Your task to perform on an android device: Go to settings Image 0: 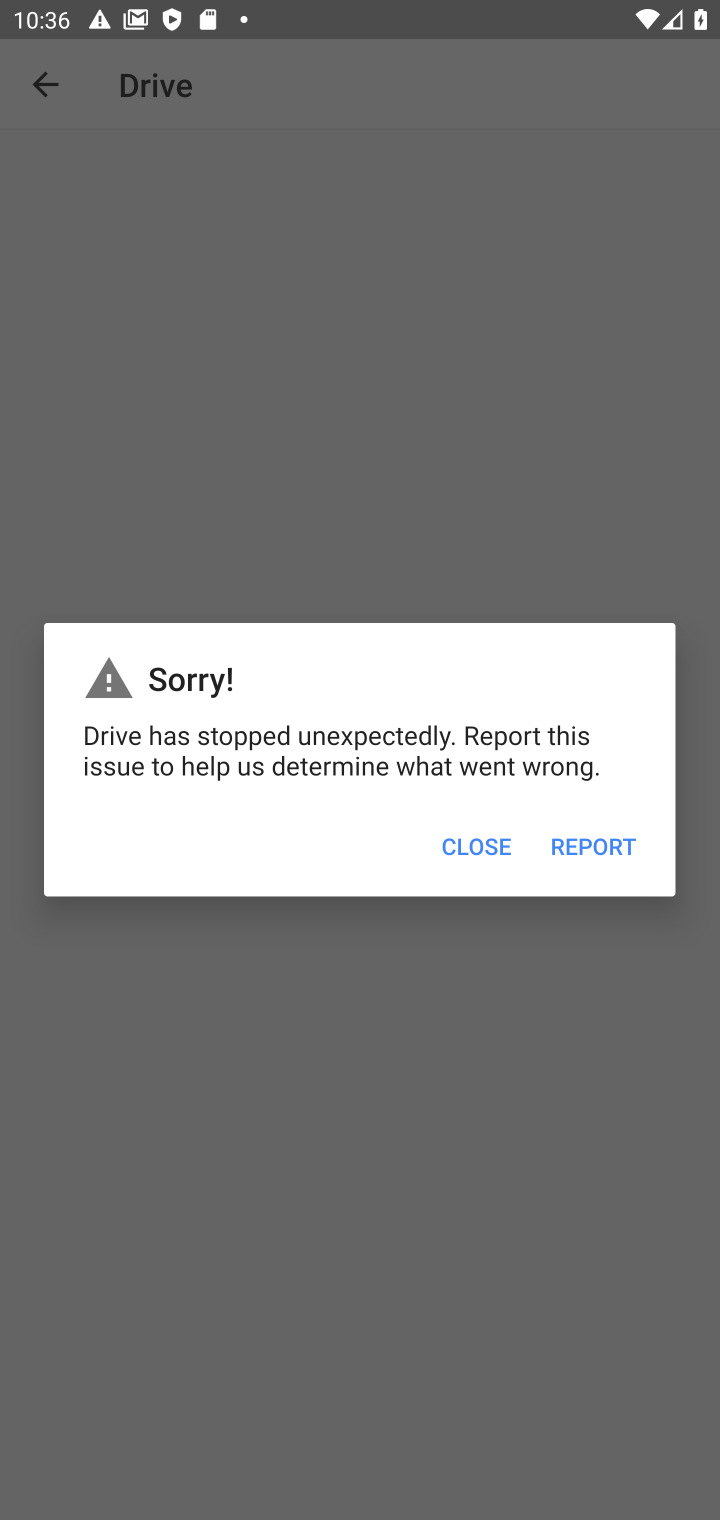
Step 0: press home button
Your task to perform on an android device: Go to settings Image 1: 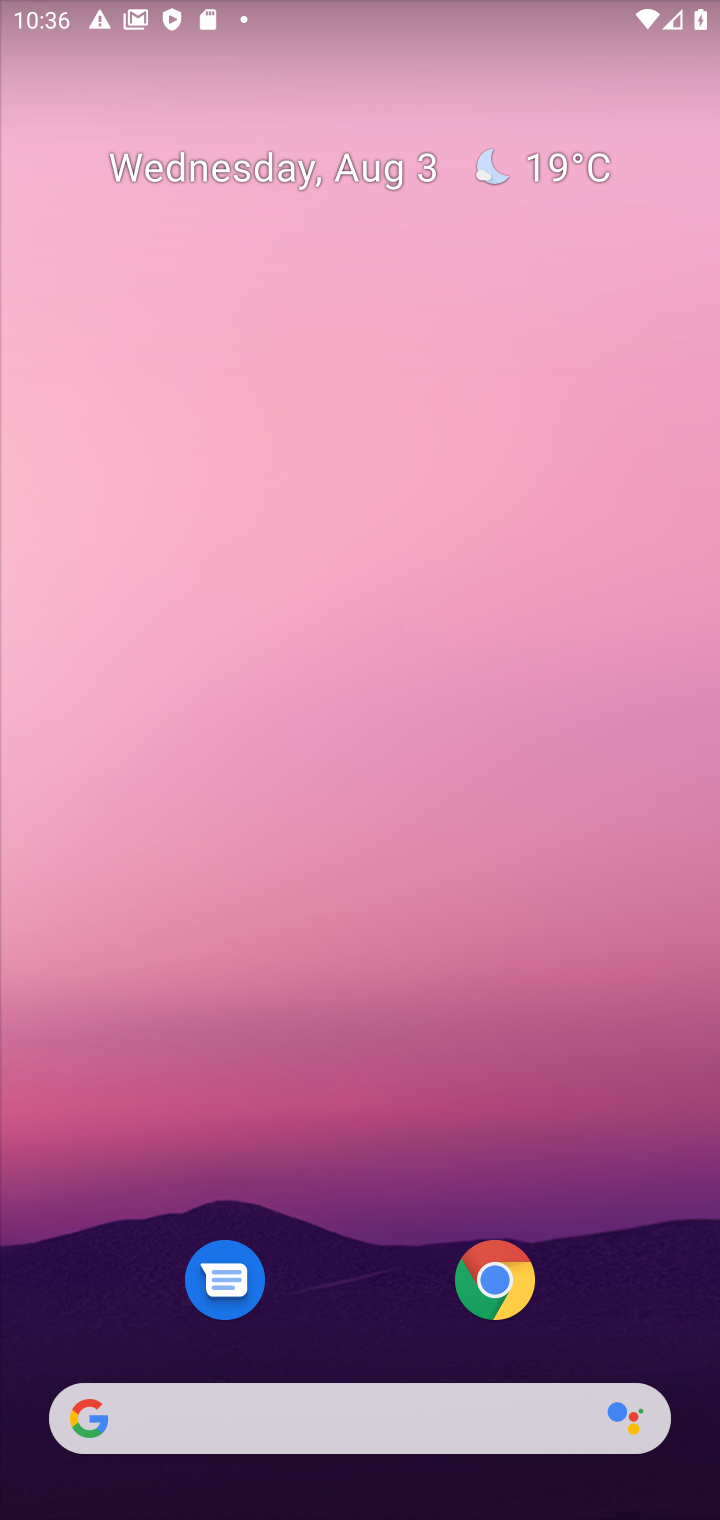
Step 1: drag from (442, 1121) to (459, 55)
Your task to perform on an android device: Go to settings Image 2: 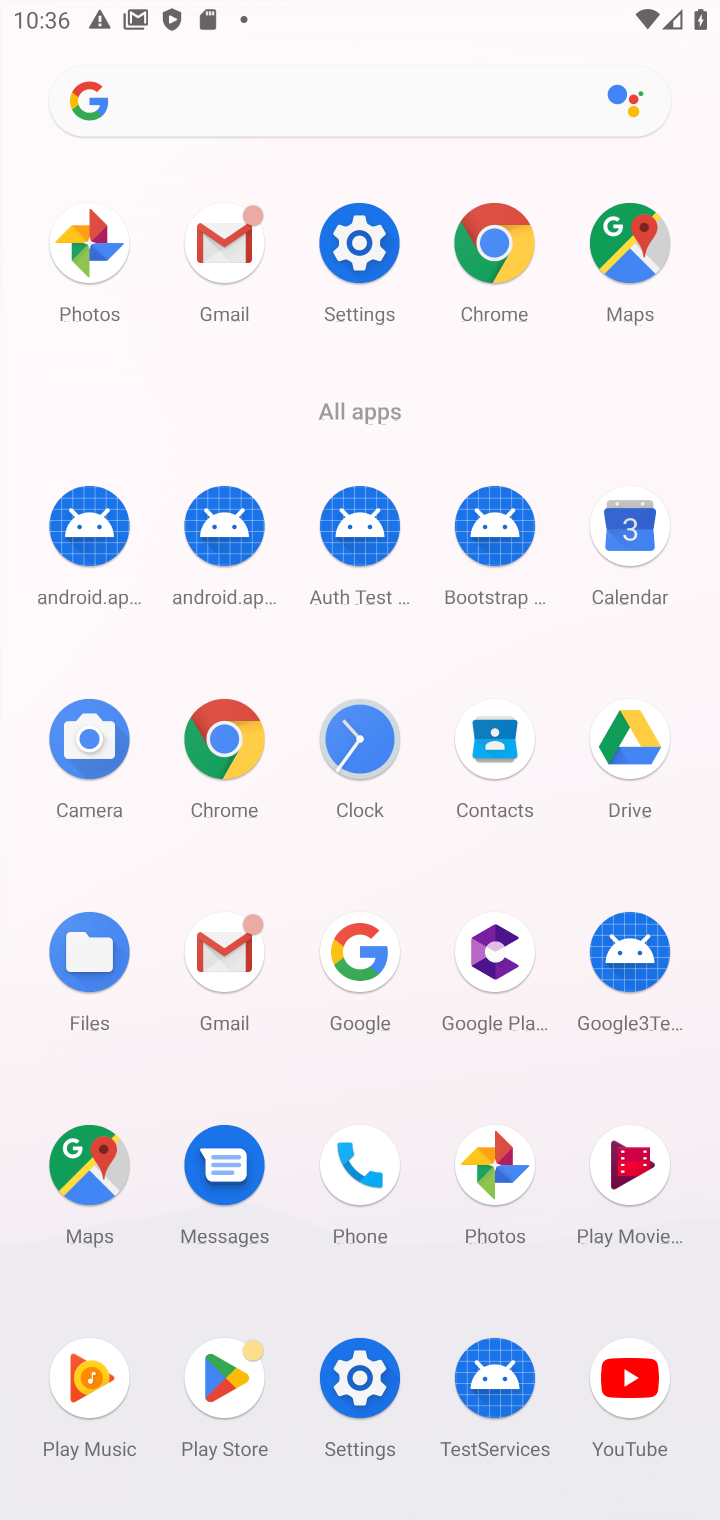
Step 2: click (368, 1396)
Your task to perform on an android device: Go to settings Image 3: 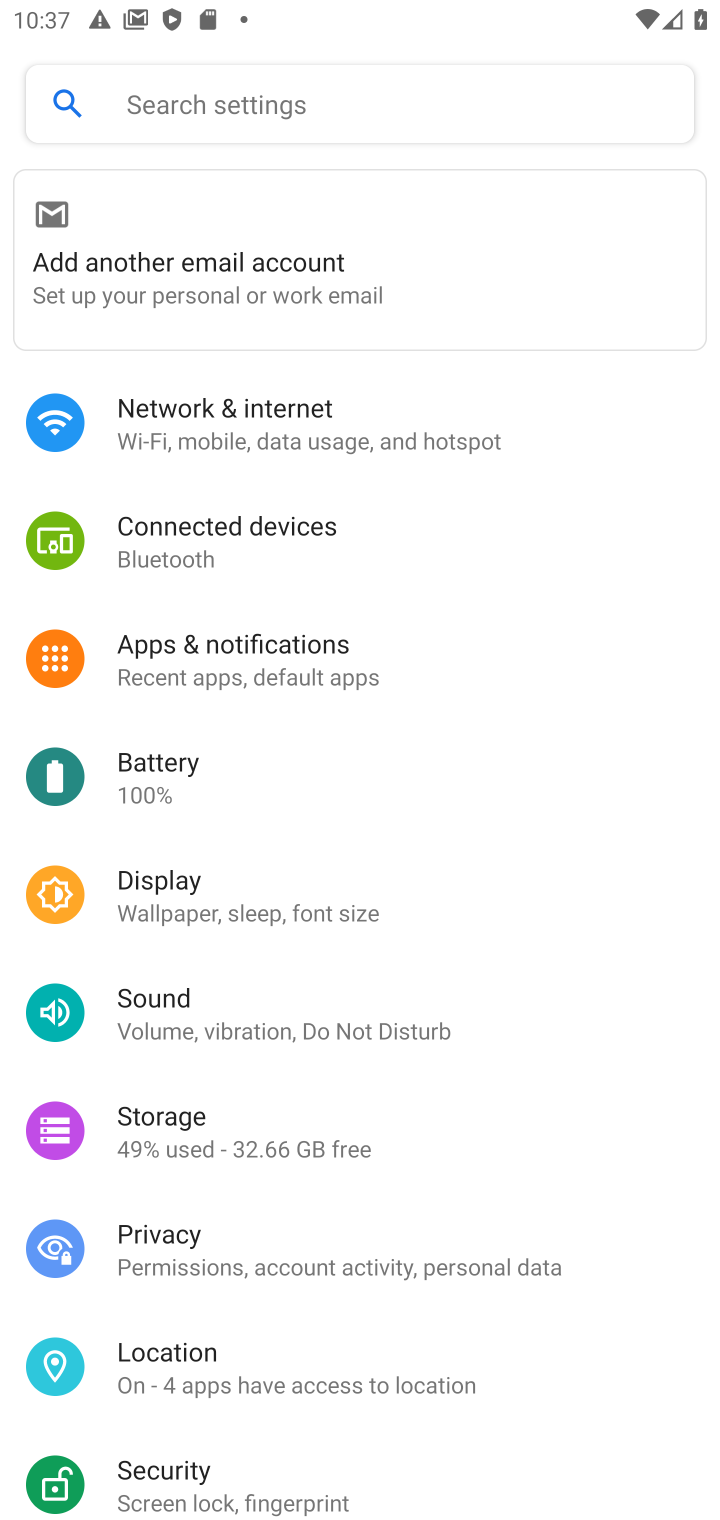
Step 3: task complete